Your task to perform on an android device: Go to Google maps Image 0: 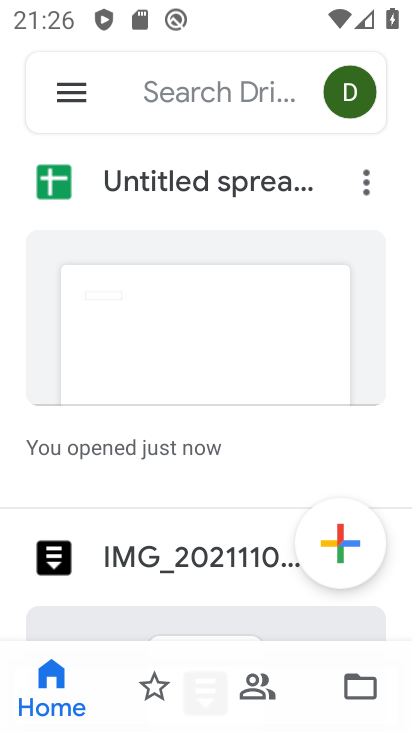
Step 0: press home button
Your task to perform on an android device: Go to Google maps Image 1: 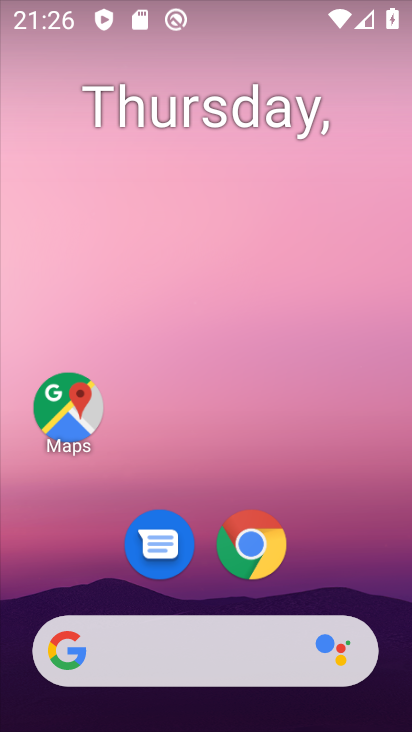
Step 1: click (59, 404)
Your task to perform on an android device: Go to Google maps Image 2: 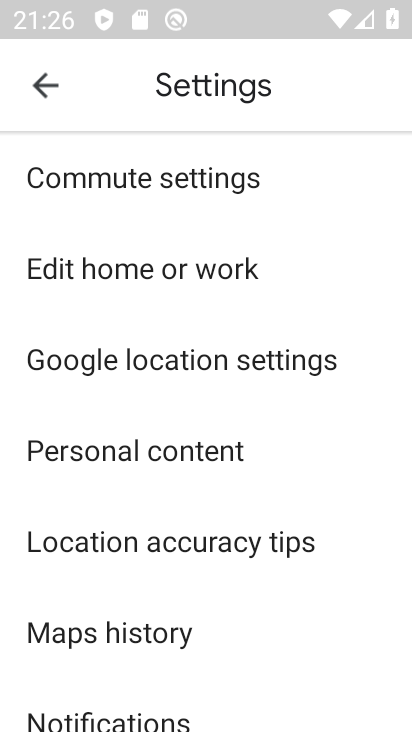
Step 2: click (46, 83)
Your task to perform on an android device: Go to Google maps Image 3: 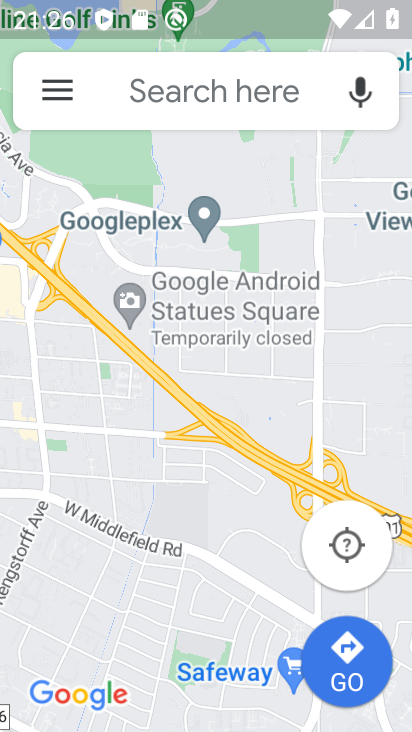
Step 3: task complete